Your task to perform on an android device: Open sound settings Image 0: 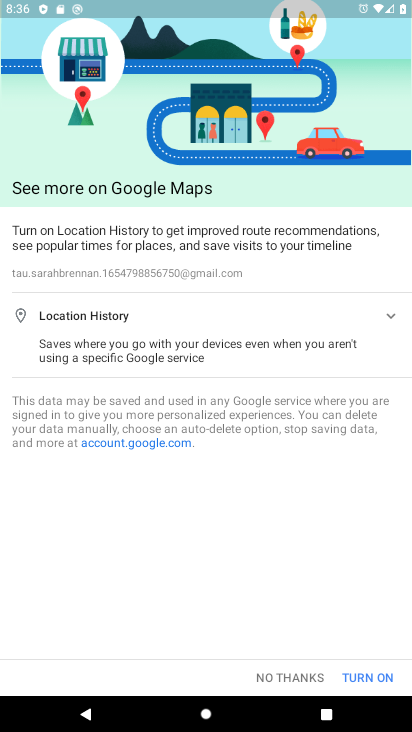
Step 0: press home button
Your task to perform on an android device: Open sound settings Image 1: 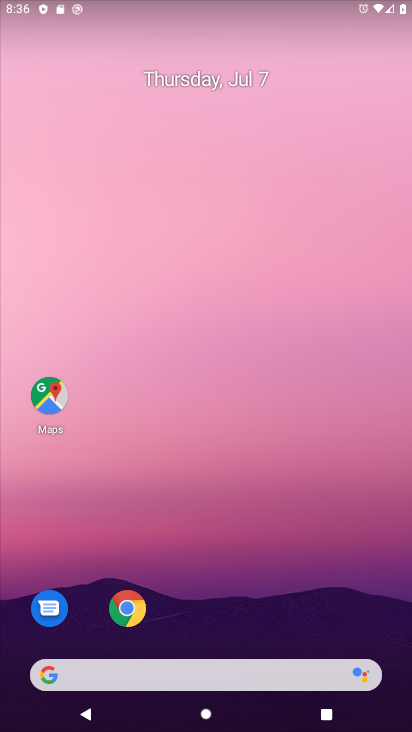
Step 1: drag from (163, 490) to (175, 352)
Your task to perform on an android device: Open sound settings Image 2: 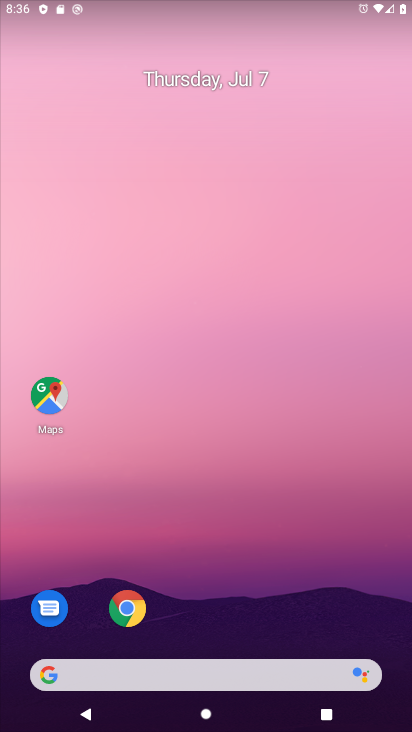
Step 2: drag from (176, 371) to (160, 168)
Your task to perform on an android device: Open sound settings Image 3: 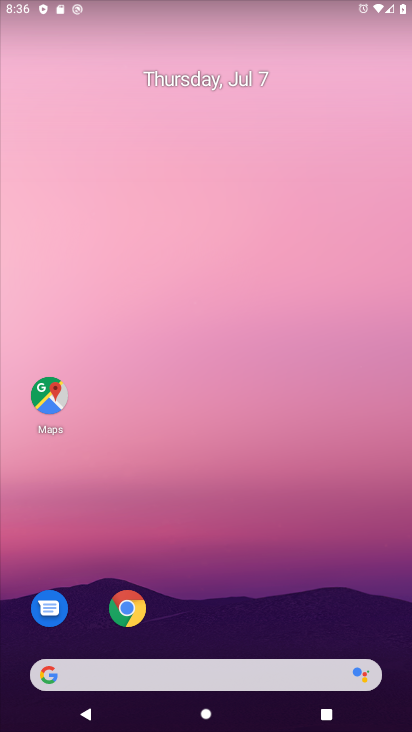
Step 3: drag from (276, 628) to (265, 235)
Your task to perform on an android device: Open sound settings Image 4: 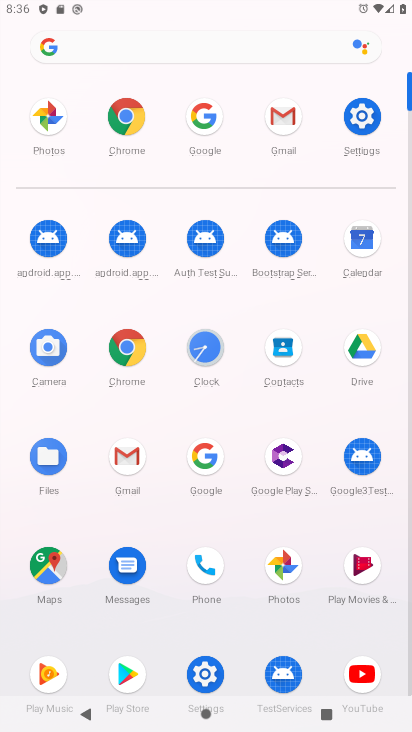
Step 4: click (358, 125)
Your task to perform on an android device: Open sound settings Image 5: 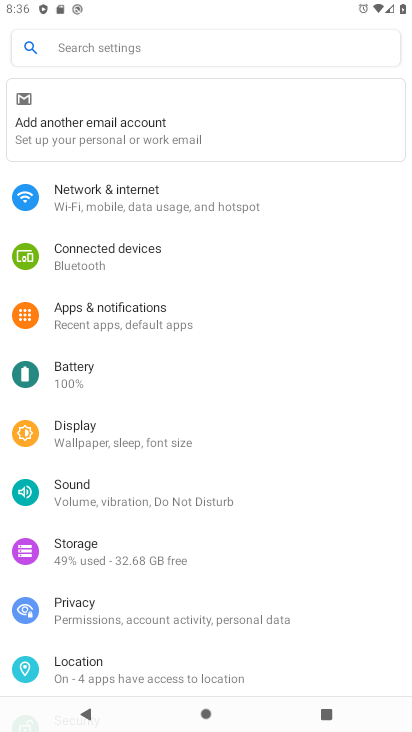
Step 5: click (122, 492)
Your task to perform on an android device: Open sound settings Image 6: 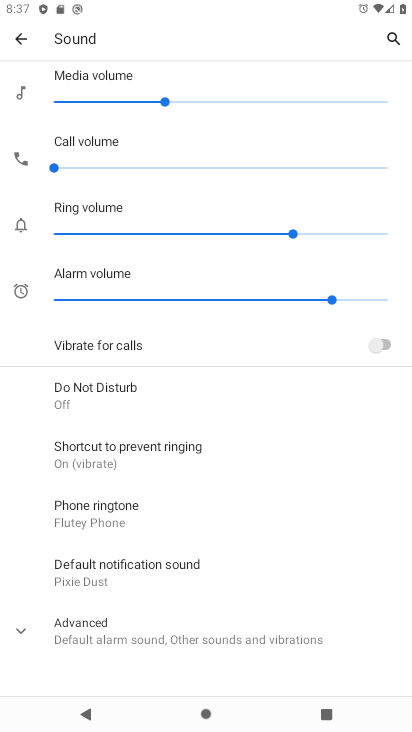
Step 6: click (142, 223)
Your task to perform on an android device: Open sound settings Image 7: 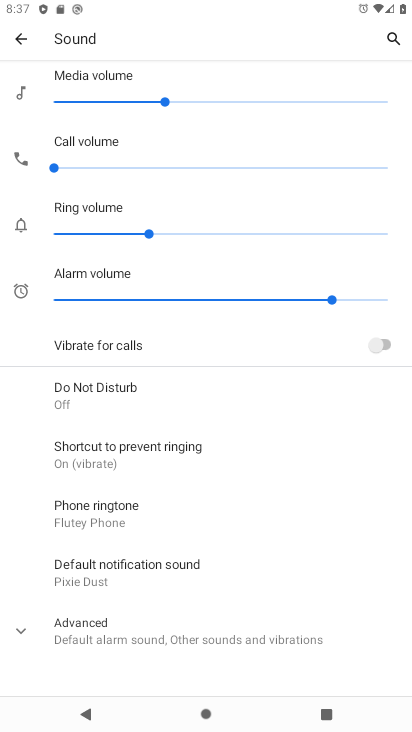
Step 7: click (131, 639)
Your task to perform on an android device: Open sound settings Image 8: 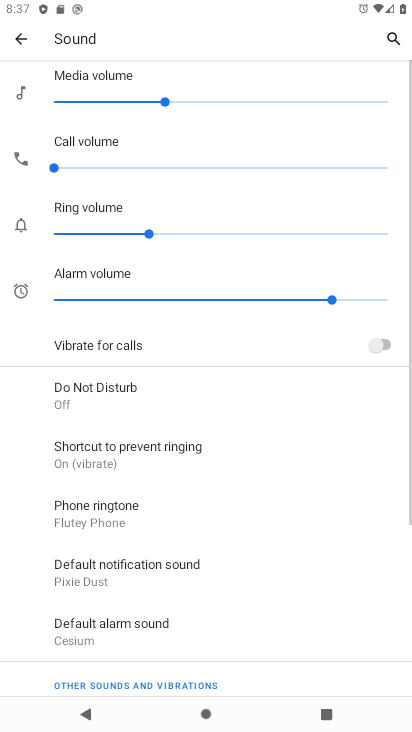
Step 8: task complete